Your task to perform on an android device: Search for sushi restaurants on Maps Image 0: 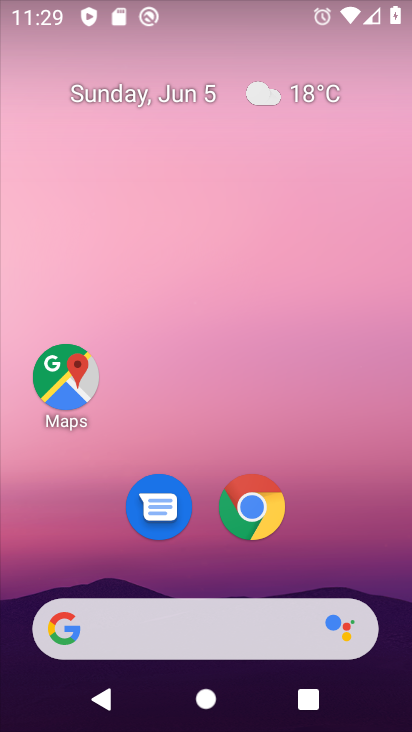
Step 0: drag from (241, 726) to (158, 2)
Your task to perform on an android device: Search for sushi restaurants on Maps Image 1: 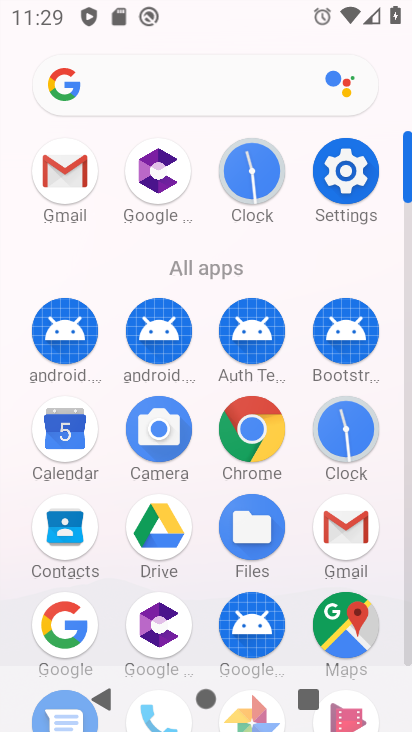
Step 1: click (347, 626)
Your task to perform on an android device: Search for sushi restaurants on Maps Image 2: 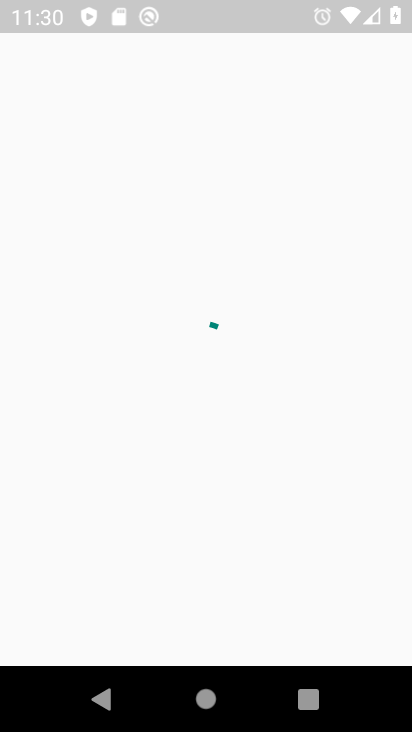
Step 2: press home button
Your task to perform on an android device: Search for sushi restaurants on Maps Image 3: 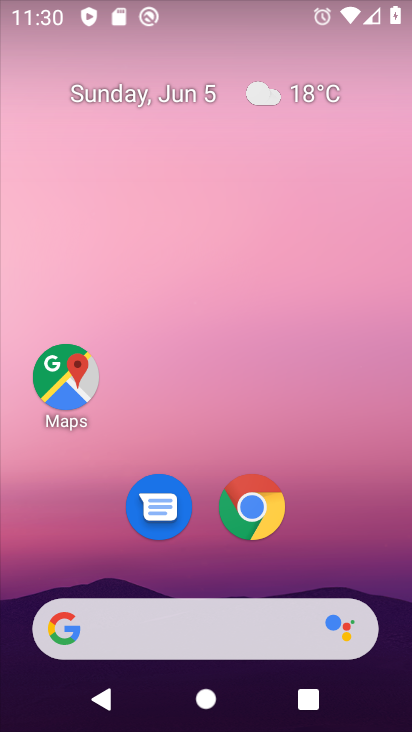
Step 3: drag from (245, 722) to (245, 107)
Your task to perform on an android device: Search for sushi restaurants on Maps Image 4: 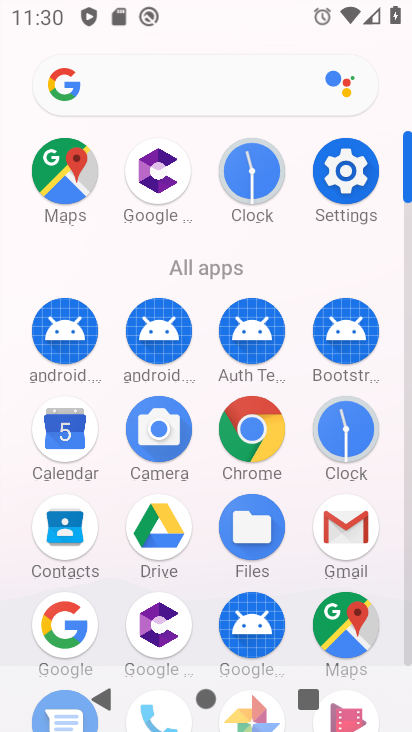
Step 4: click (351, 621)
Your task to perform on an android device: Search for sushi restaurants on Maps Image 5: 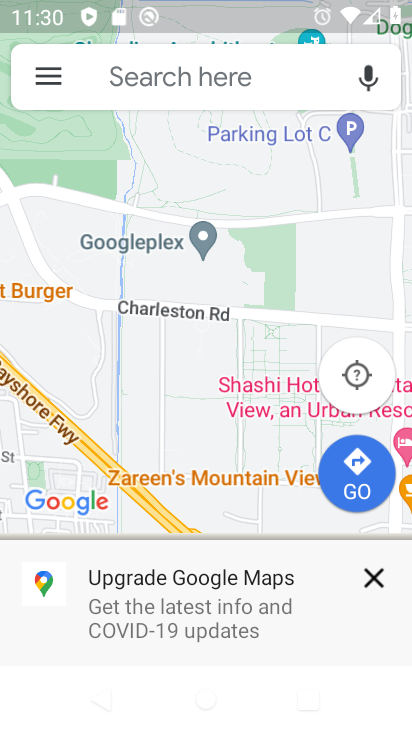
Step 5: click (190, 80)
Your task to perform on an android device: Search for sushi restaurants on Maps Image 6: 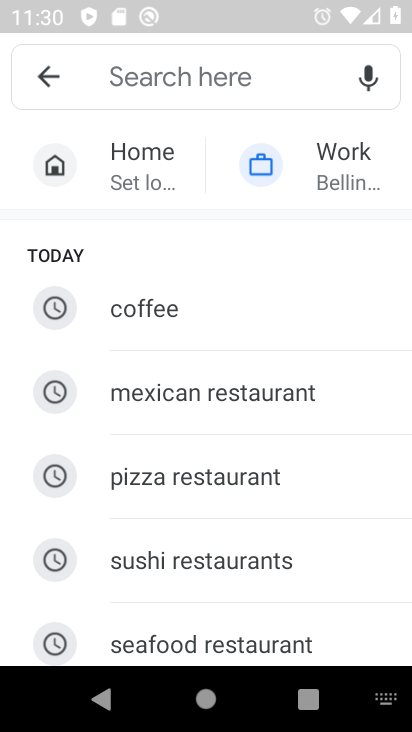
Step 6: type "sushi restaurants"
Your task to perform on an android device: Search for sushi restaurants on Maps Image 7: 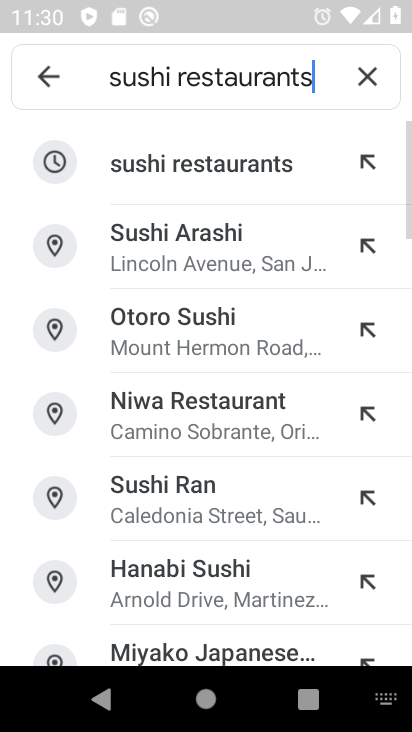
Step 7: click (152, 169)
Your task to perform on an android device: Search for sushi restaurants on Maps Image 8: 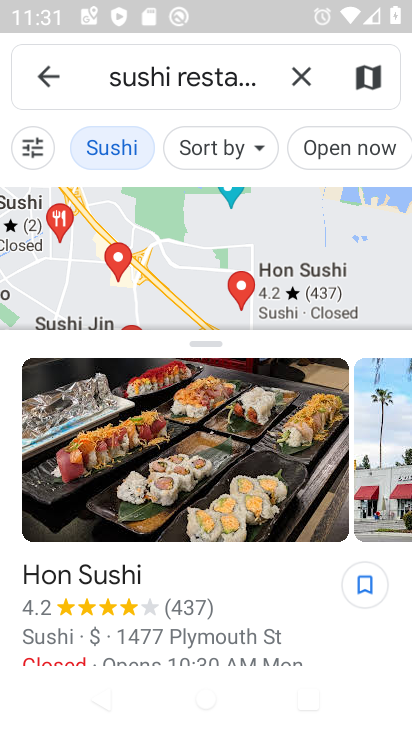
Step 8: task complete